Your task to perform on an android device: Go to network settings Image 0: 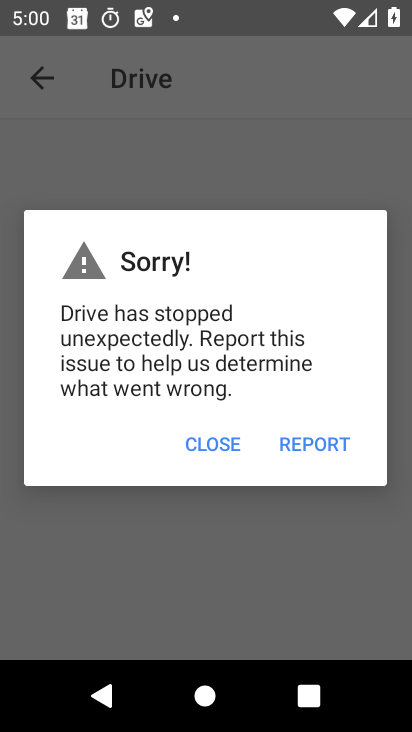
Step 0: press back button
Your task to perform on an android device: Go to network settings Image 1: 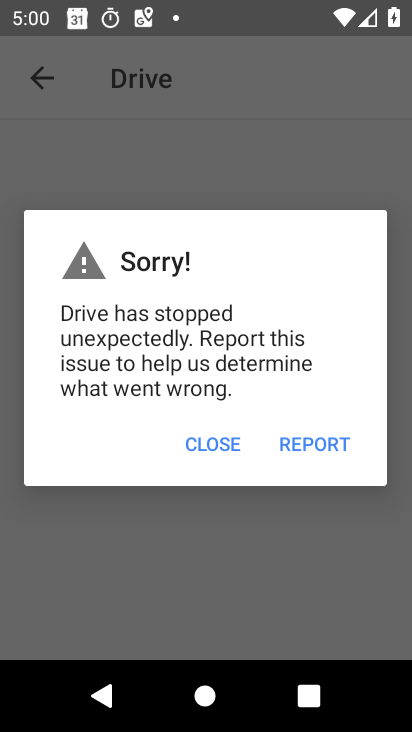
Step 1: press home button
Your task to perform on an android device: Go to network settings Image 2: 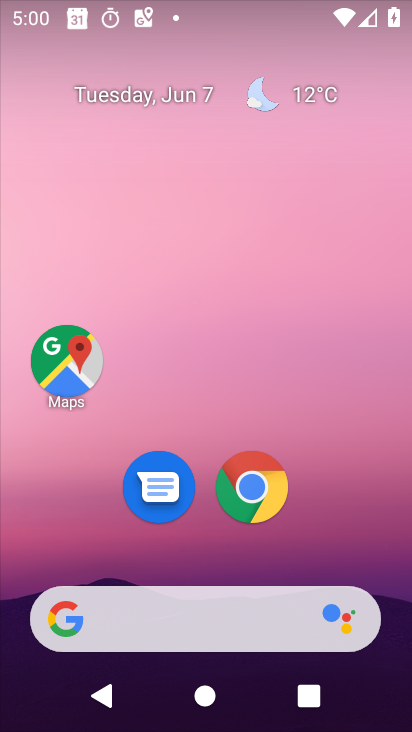
Step 2: drag from (204, 552) to (260, 5)
Your task to perform on an android device: Go to network settings Image 3: 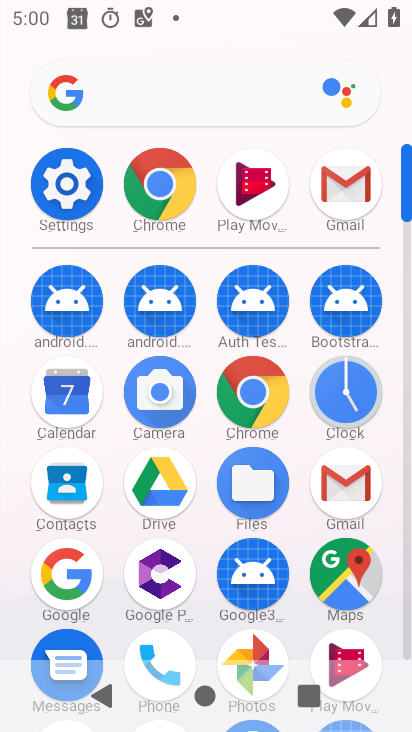
Step 3: click (57, 178)
Your task to perform on an android device: Go to network settings Image 4: 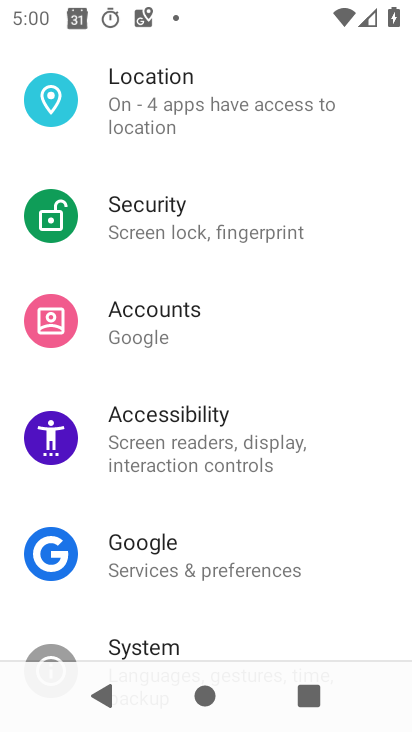
Step 4: drag from (192, 135) to (203, 730)
Your task to perform on an android device: Go to network settings Image 5: 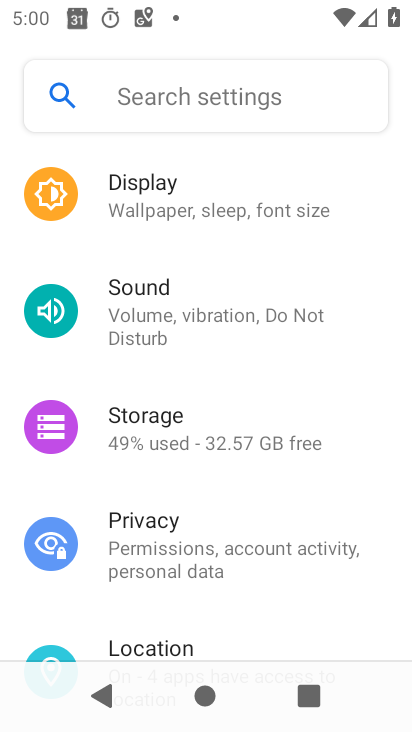
Step 5: drag from (205, 239) to (218, 716)
Your task to perform on an android device: Go to network settings Image 6: 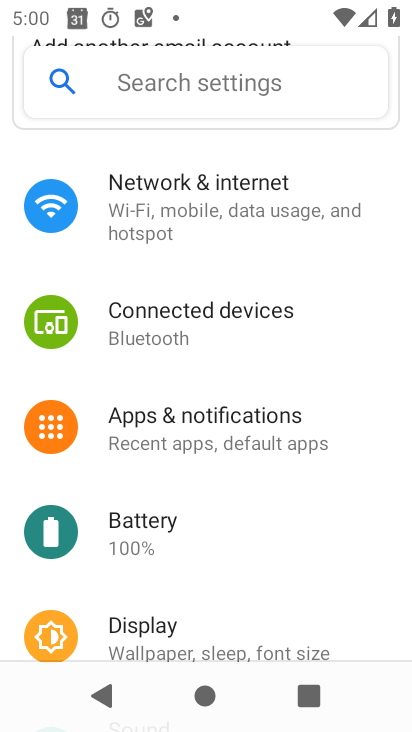
Step 6: click (189, 218)
Your task to perform on an android device: Go to network settings Image 7: 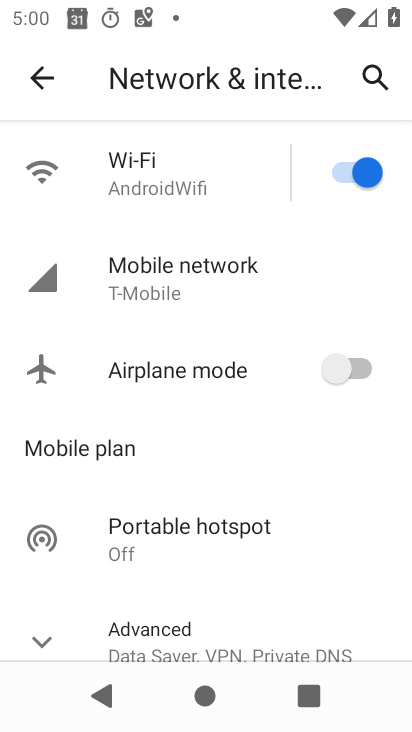
Step 7: task complete